Your task to perform on an android device: Go to Google Image 0: 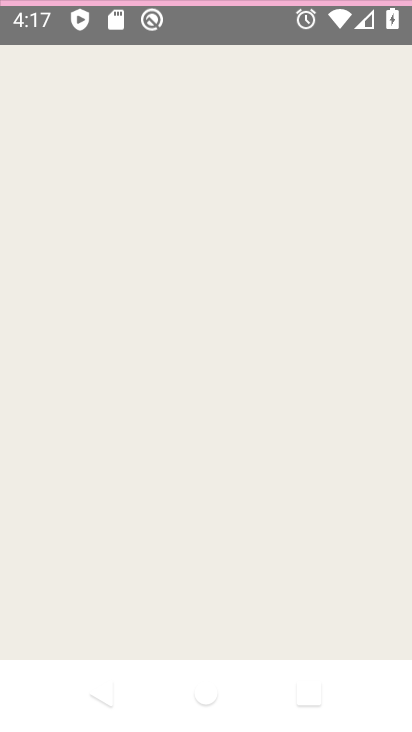
Step 0: drag from (340, 511) to (229, 113)
Your task to perform on an android device: Go to Google Image 1: 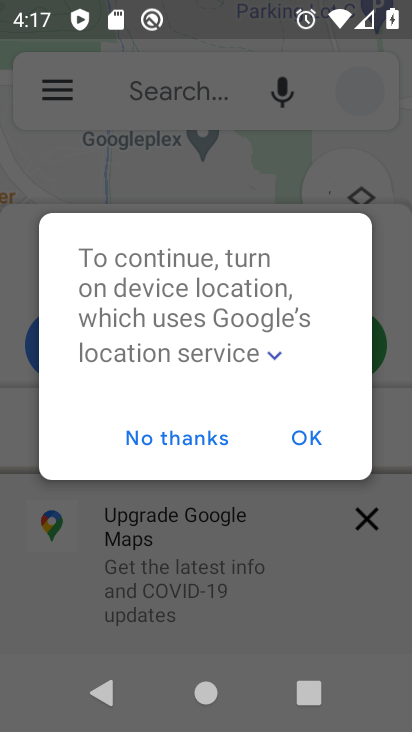
Step 1: press back button
Your task to perform on an android device: Go to Google Image 2: 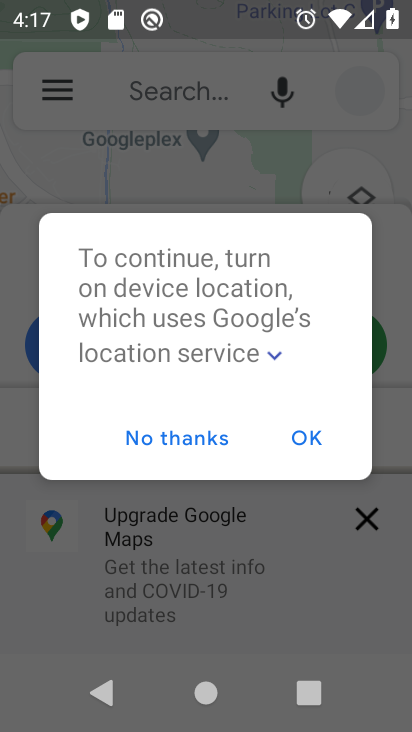
Step 2: press back button
Your task to perform on an android device: Go to Google Image 3: 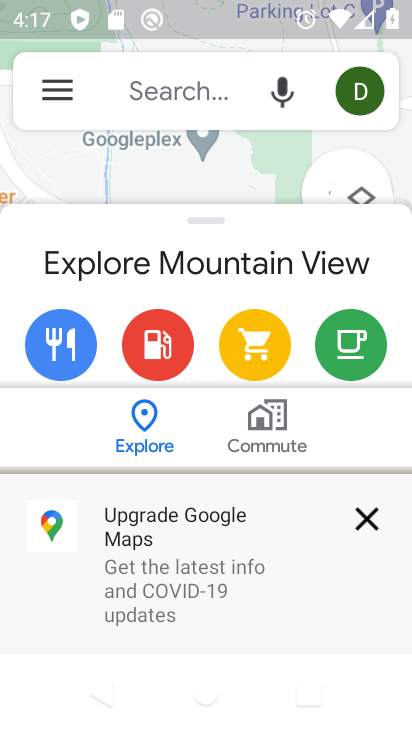
Step 3: press back button
Your task to perform on an android device: Go to Google Image 4: 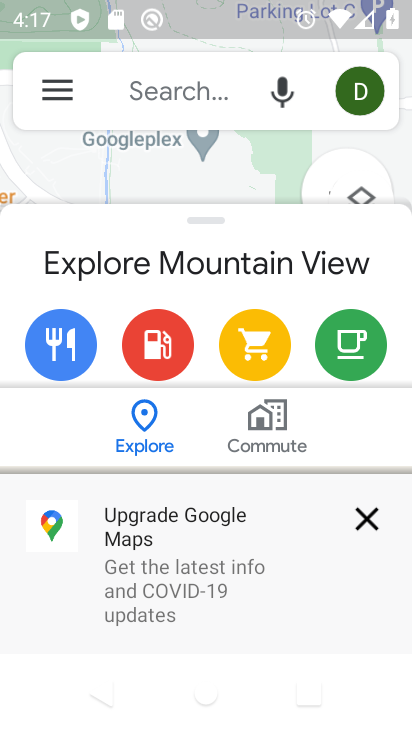
Step 4: press back button
Your task to perform on an android device: Go to Google Image 5: 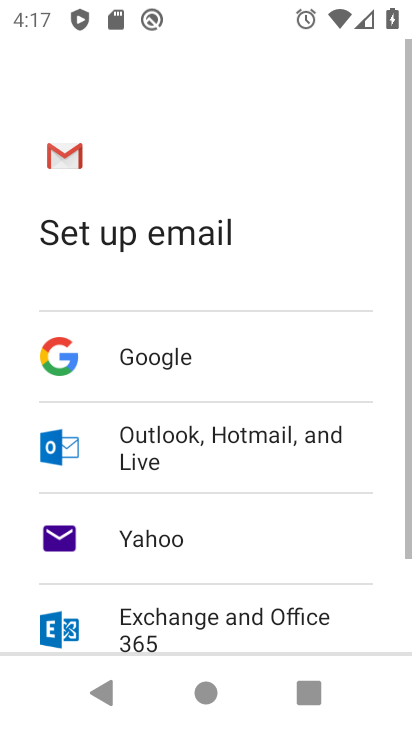
Step 5: press back button
Your task to perform on an android device: Go to Google Image 6: 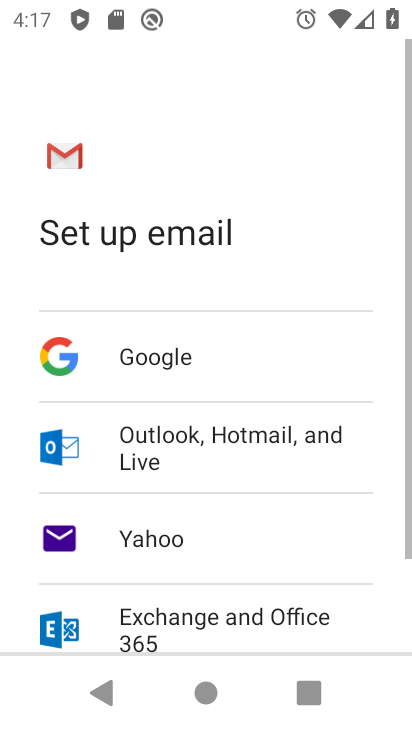
Step 6: press back button
Your task to perform on an android device: Go to Google Image 7: 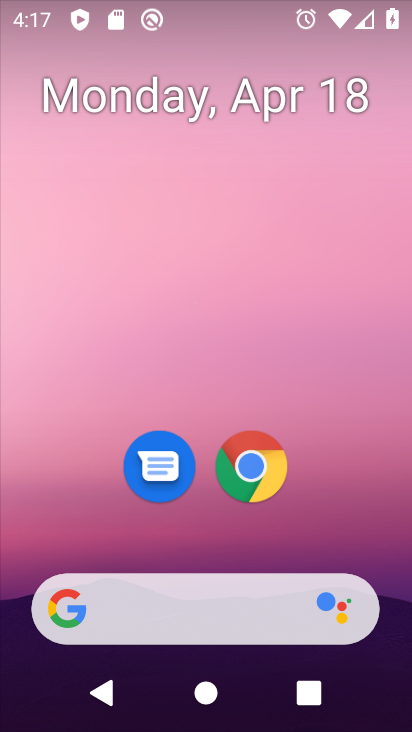
Step 7: click (247, 603)
Your task to perform on an android device: Go to Google Image 8: 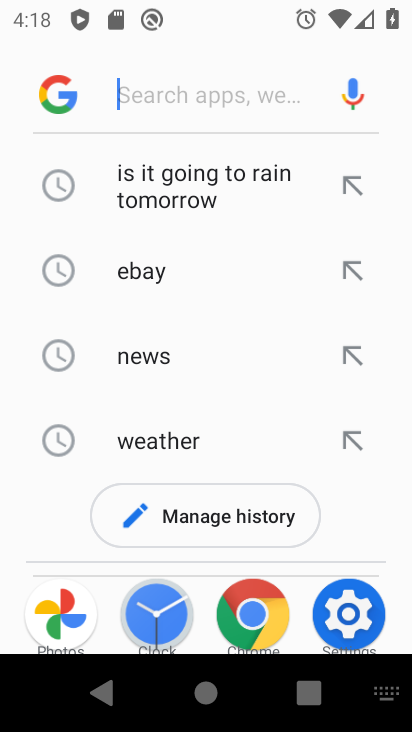
Step 8: type "google"
Your task to perform on an android device: Go to Google Image 9: 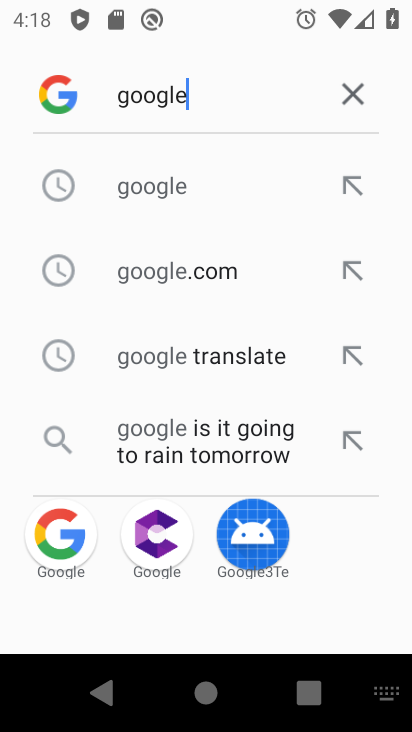
Step 9: click (168, 187)
Your task to perform on an android device: Go to Google Image 10: 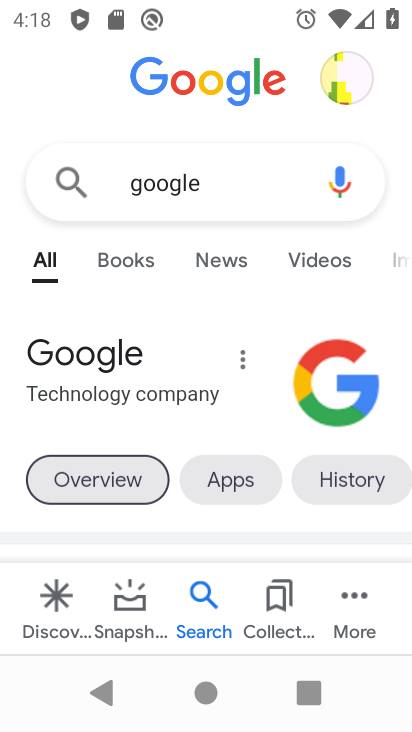
Step 10: drag from (144, 472) to (187, 214)
Your task to perform on an android device: Go to Google Image 11: 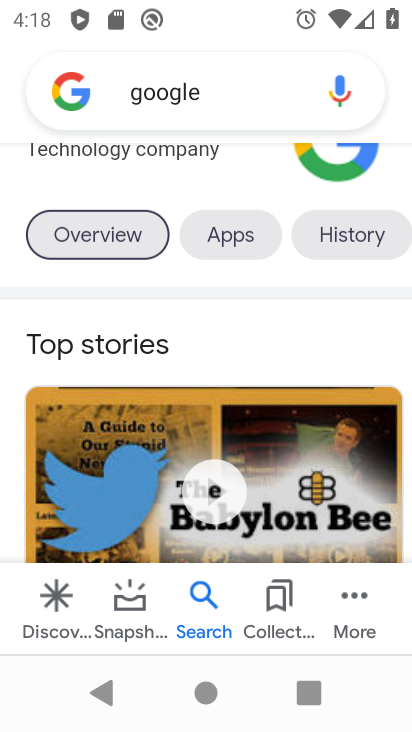
Step 11: drag from (255, 477) to (286, 177)
Your task to perform on an android device: Go to Google Image 12: 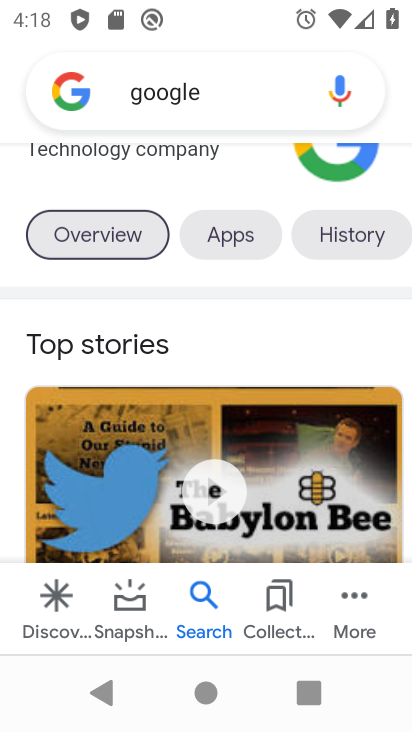
Step 12: drag from (256, 526) to (264, 177)
Your task to perform on an android device: Go to Google Image 13: 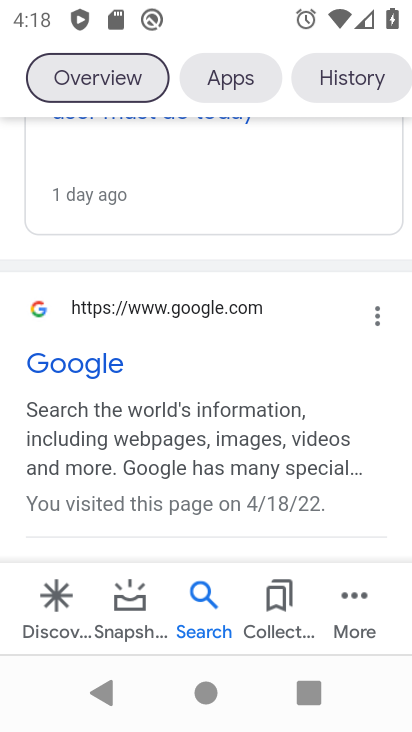
Step 13: click (88, 358)
Your task to perform on an android device: Go to Google Image 14: 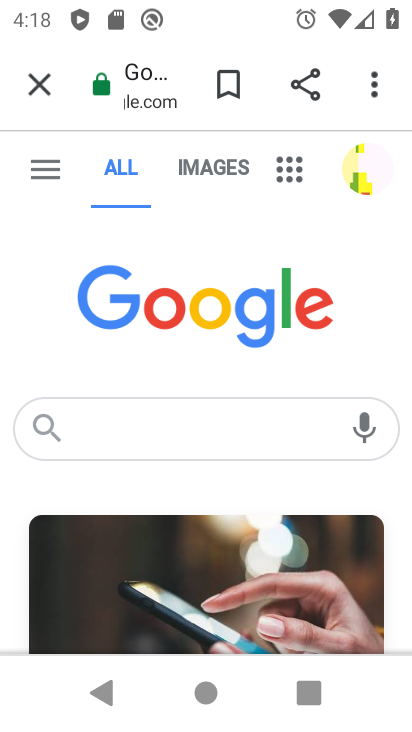
Step 14: task complete